Your task to perform on an android device: check google app version Image 0: 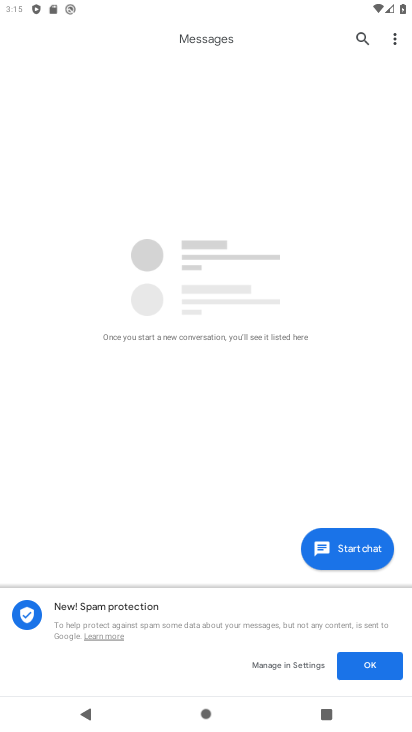
Step 0: press home button
Your task to perform on an android device: check google app version Image 1: 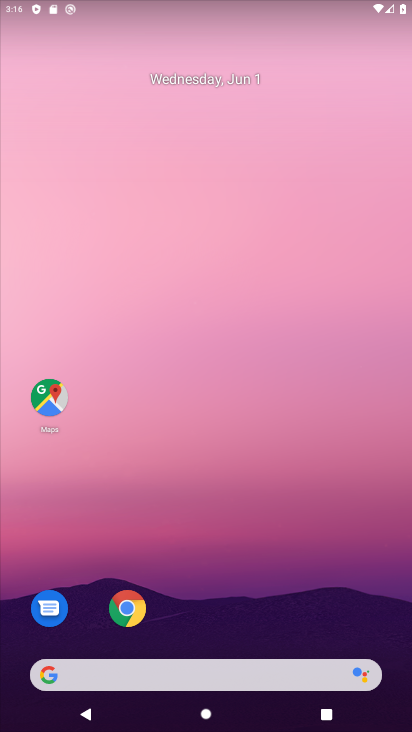
Step 1: drag from (188, 669) to (154, 218)
Your task to perform on an android device: check google app version Image 2: 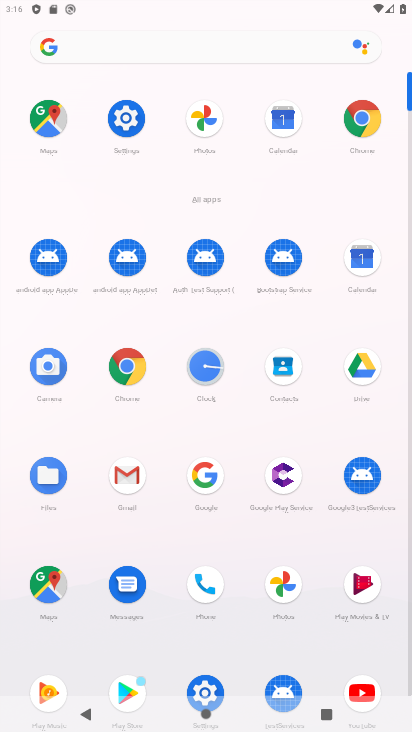
Step 2: click (195, 472)
Your task to perform on an android device: check google app version Image 3: 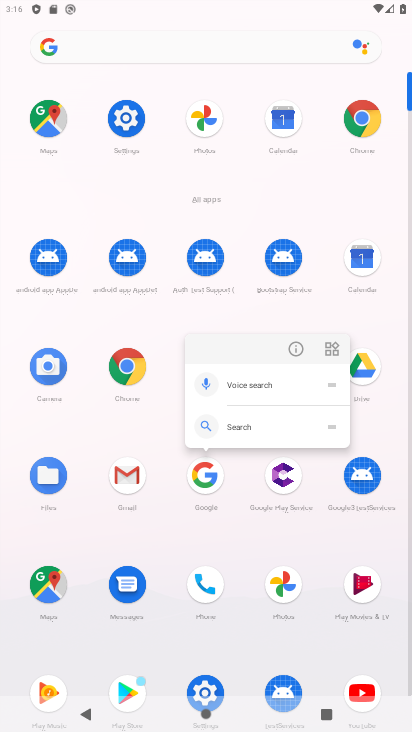
Step 3: click (296, 340)
Your task to perform on an android device: check google app version Image 4: 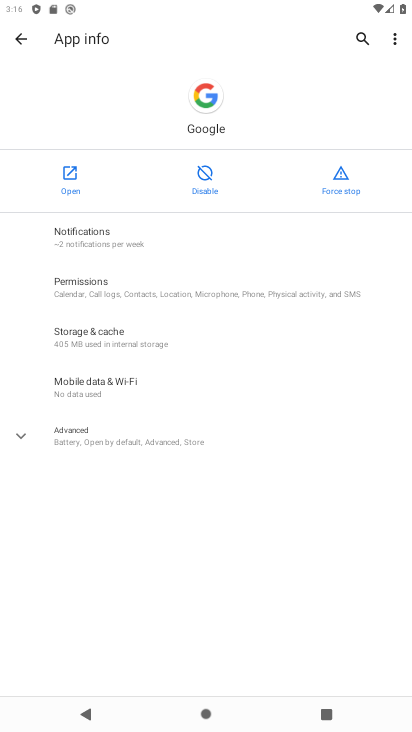
Step 4: click (159, 445)
Your task to perform on an android device: check google app version Image 5: 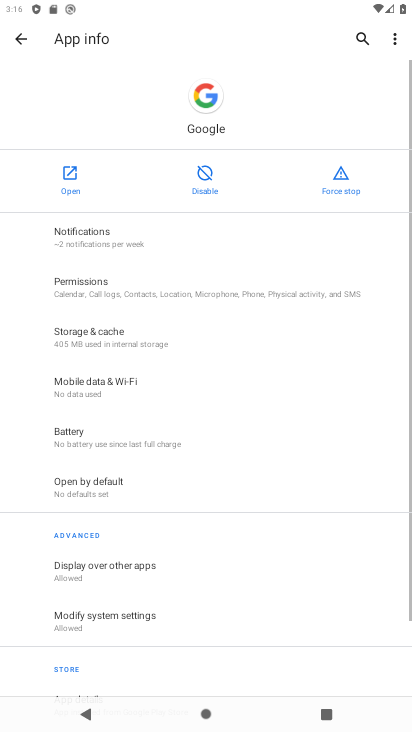
Step 5: task complete